Your task to perform on an android device: Open Google Chrome Image 0: 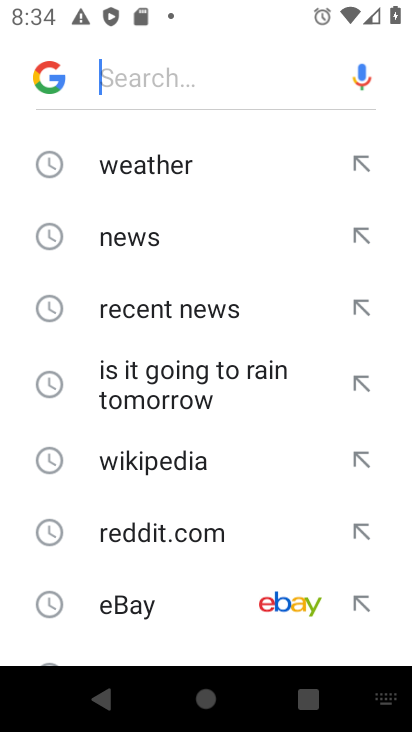
Step 0: press home button
Your task to perform on an android device: Open Google Chrome Image 1: 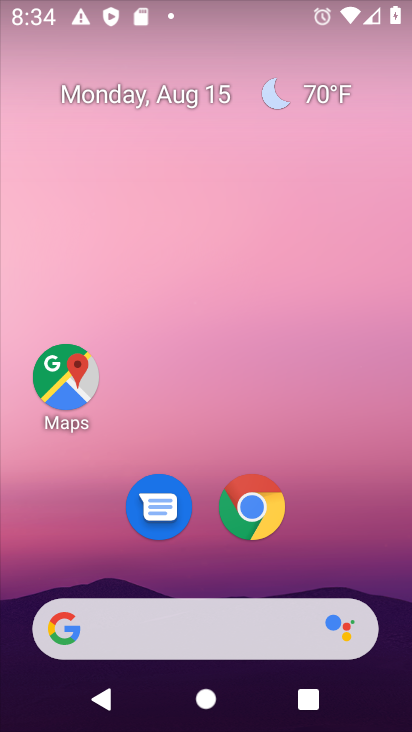
Step 1: drag from (216, 506) to (259, 48)
Your task to perform on an android device: Open Google Chrome Image 2: 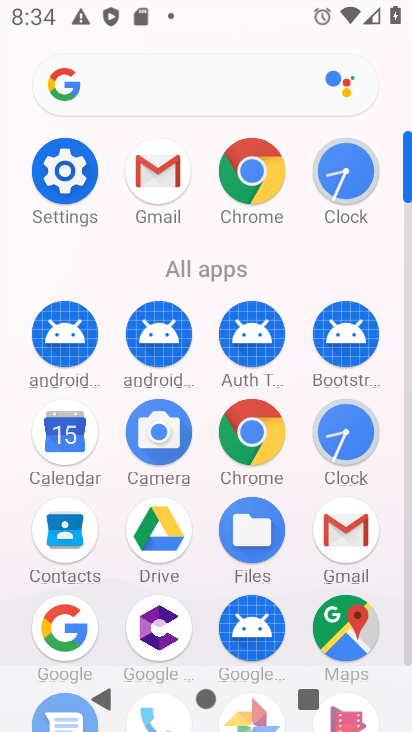
Step 2: click (253, 196)
Your task to perform on an android device: Open Google Chrome Image 3: 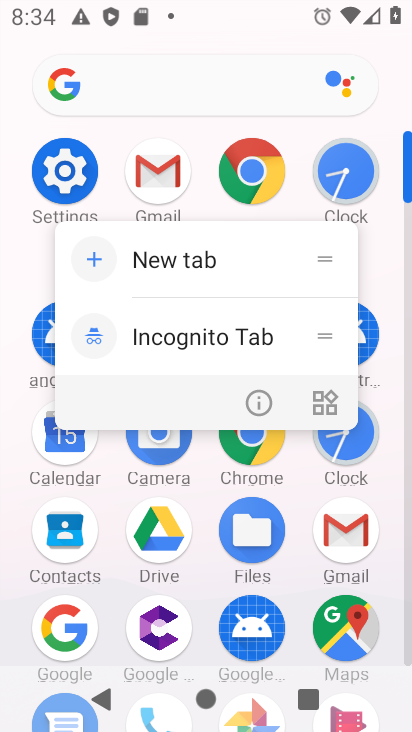
Step 3: click (253, 193)
Your task to perform on an android device: Open Google Chrome Image 4: 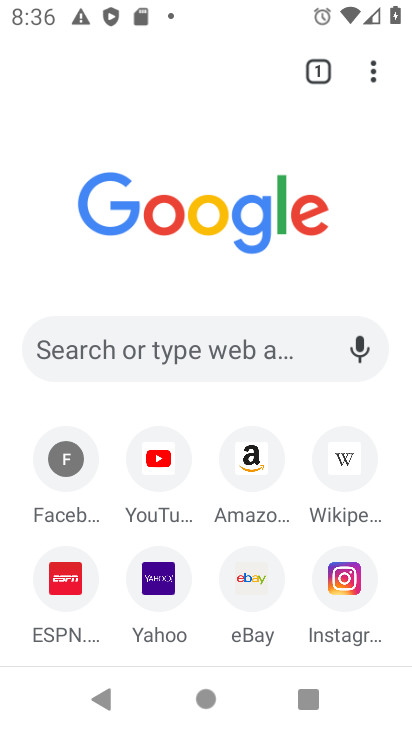
Step 4: task complete